Your task to perform on an android device: check the backup settings in the google photos Image 0: 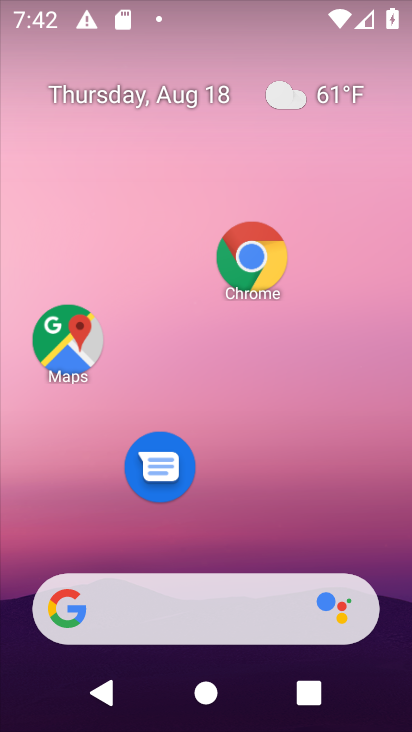
Step 0: drag from (290, 496) to (295, 172)
Your task to perform on an android device: check the backup settings in the google photos Image 1: 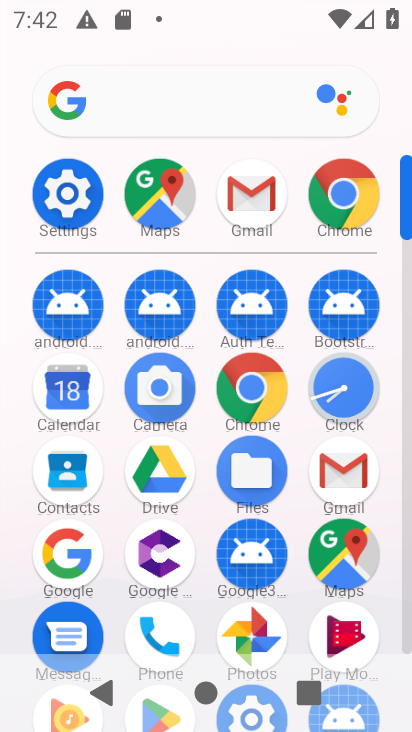
Step 1: task complete